Your task to perform on an android device: Open Android settings Image 0: 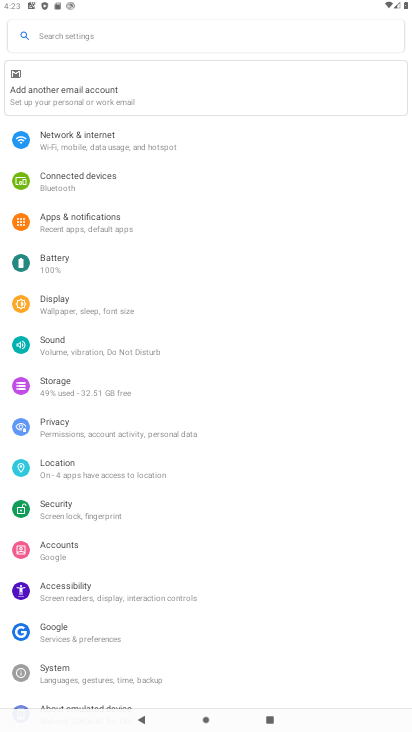
Step 0: task complete